Your task to perform on an android device: Open Maps and search for coffee Image 0: 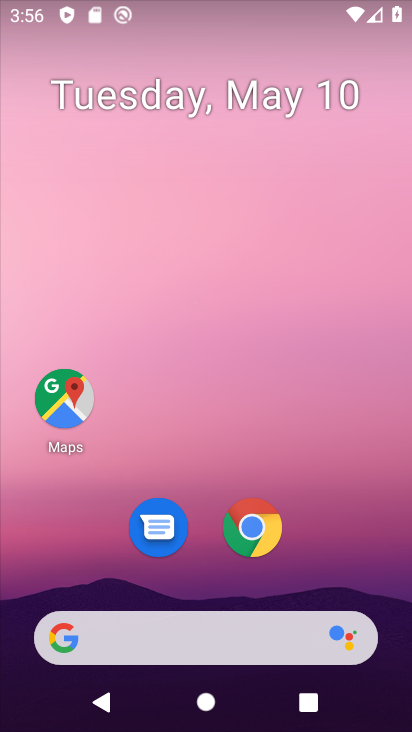
Step 0: click (66, 386)
Your task to perform on an android device: Open Maps and search for coffee Image 1: 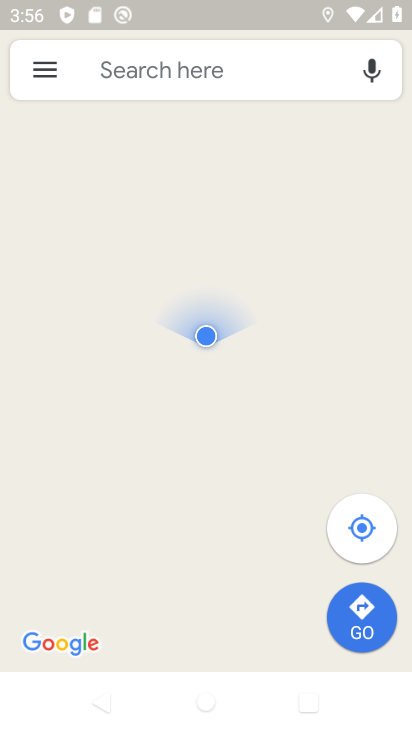
Step 1: click (239, 71)
Your task to perform on an android device: Open Maps and search for coffee Image 2: 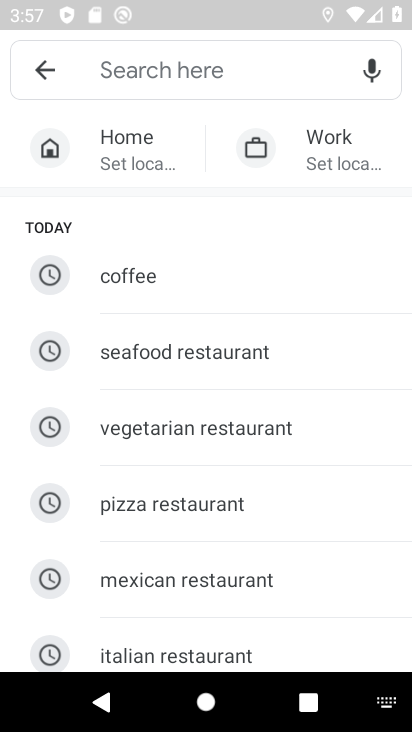
Step 2: click (170, 277)
Your task to perform on an android device: Open Maps and search for coffee Image 3: 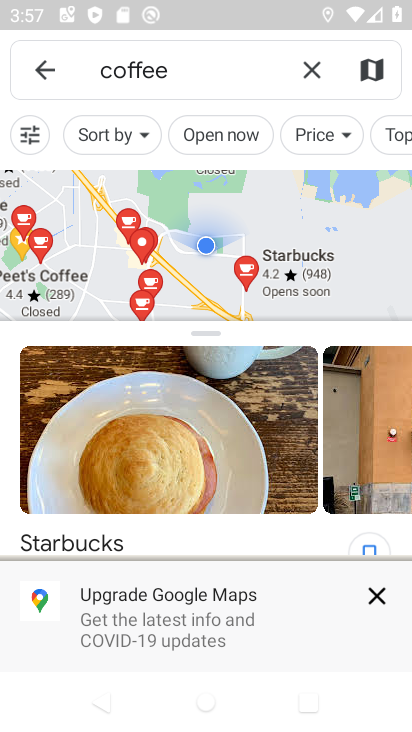
Step 3: drag from (290, 471) to (283, 178)
Your task to perform on an android device: Open Maps and search for coffee Image 4: 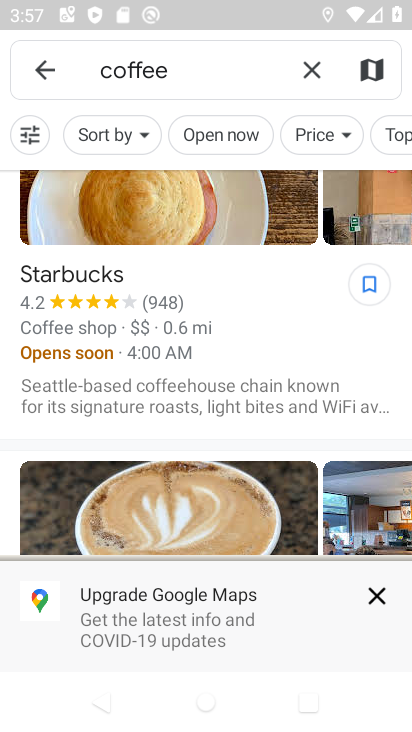
Step 4: click (372, 583)
Your task to perform on an android device: Open Maps and search for coffee Image 5: 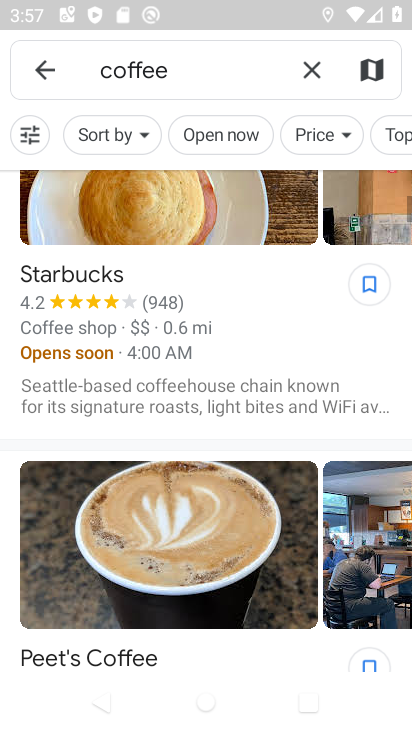
Step 5: task complete